Your task to perform on an android device: Check the news Image 0: 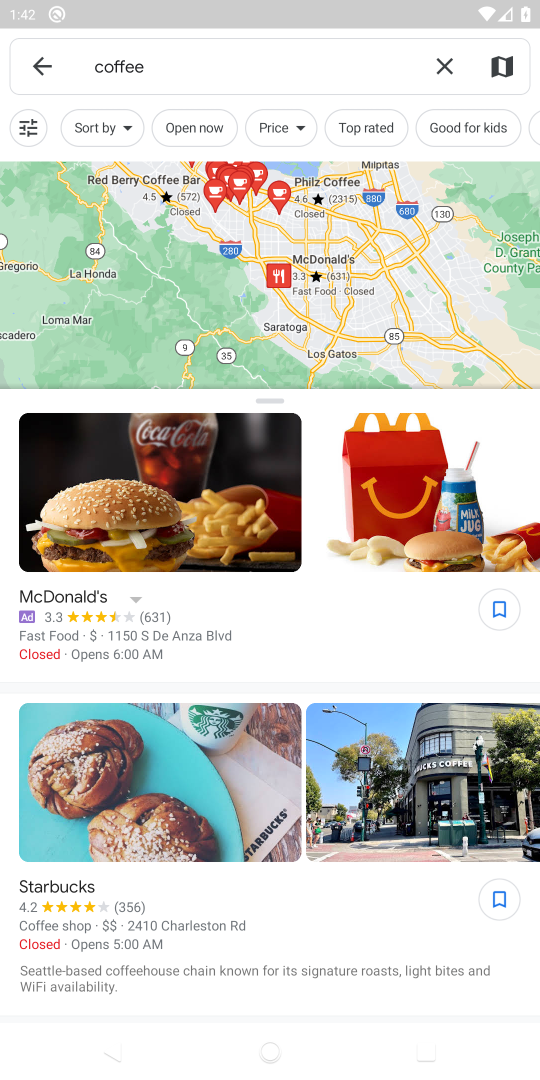
Step 0: press home button
Your task to perform on an android device: Check the news Image 1: 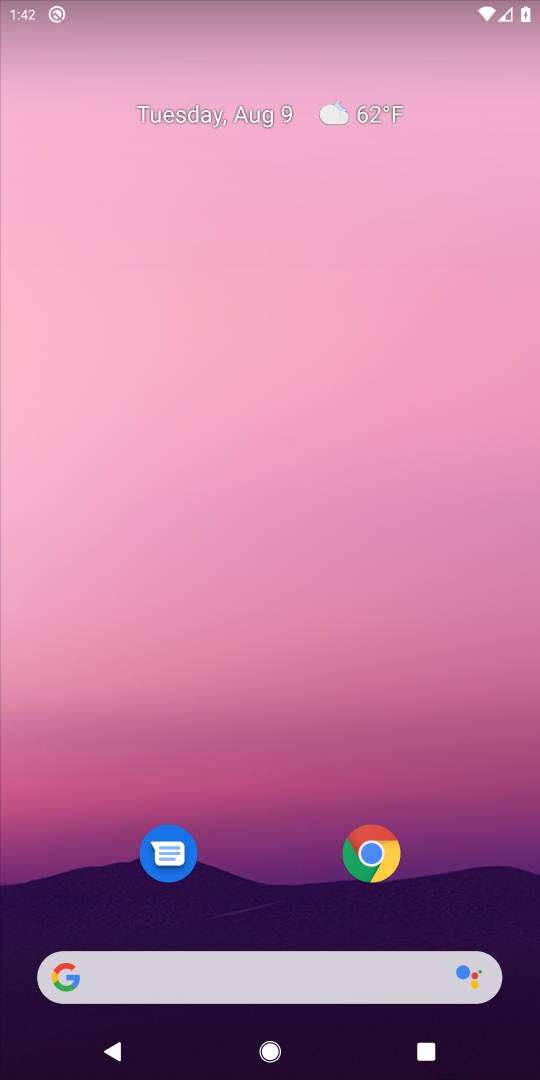
Step 1: click (62, 981)
Your task to perform on an android device: Check the news Image 2: 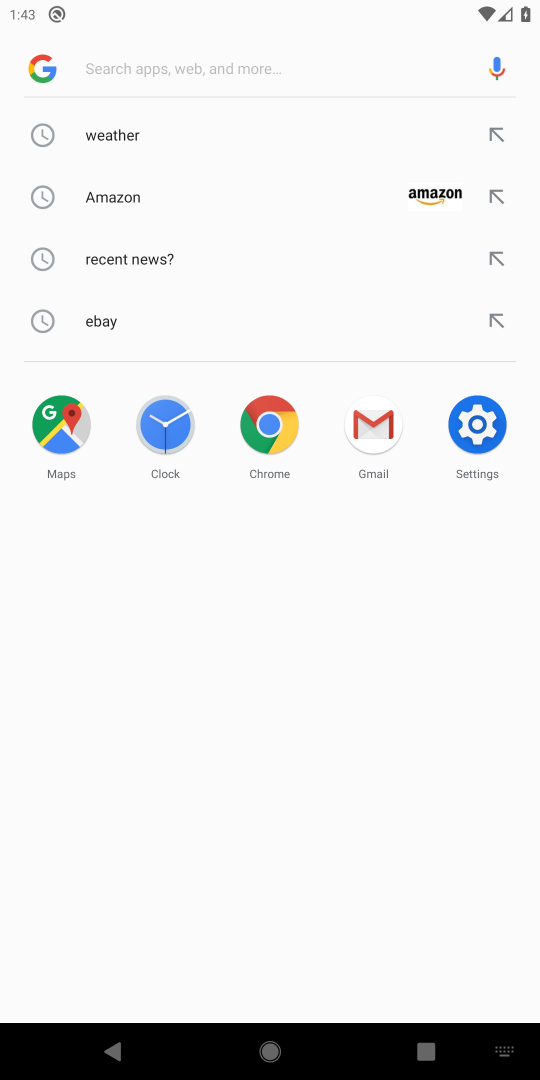
Step 2: type "news"
Your task to perform on an android device: Check the news Image 3: 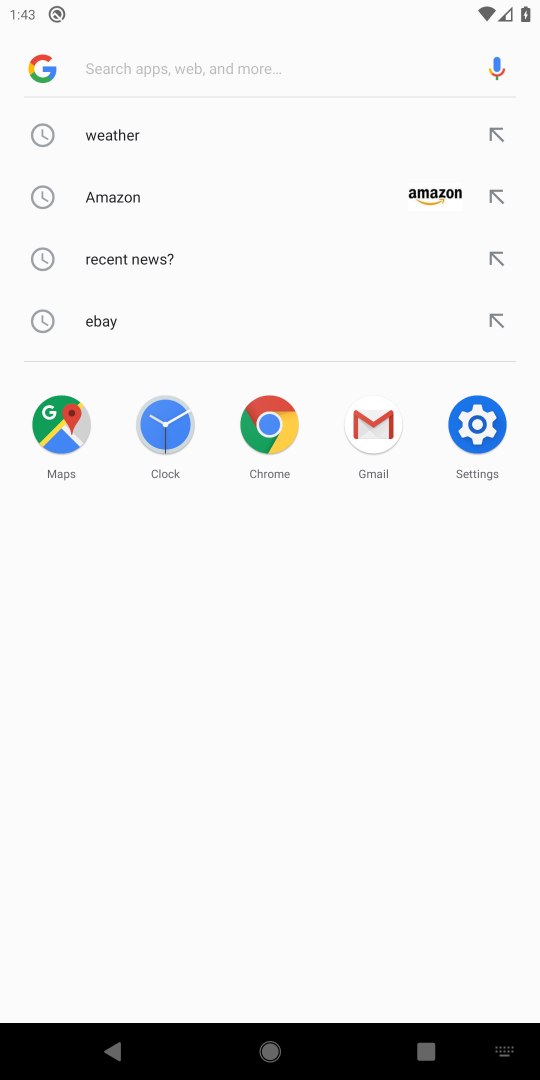
Step 3: click (188, 69)
Your task to perform on an android device: Check the news Image 4: 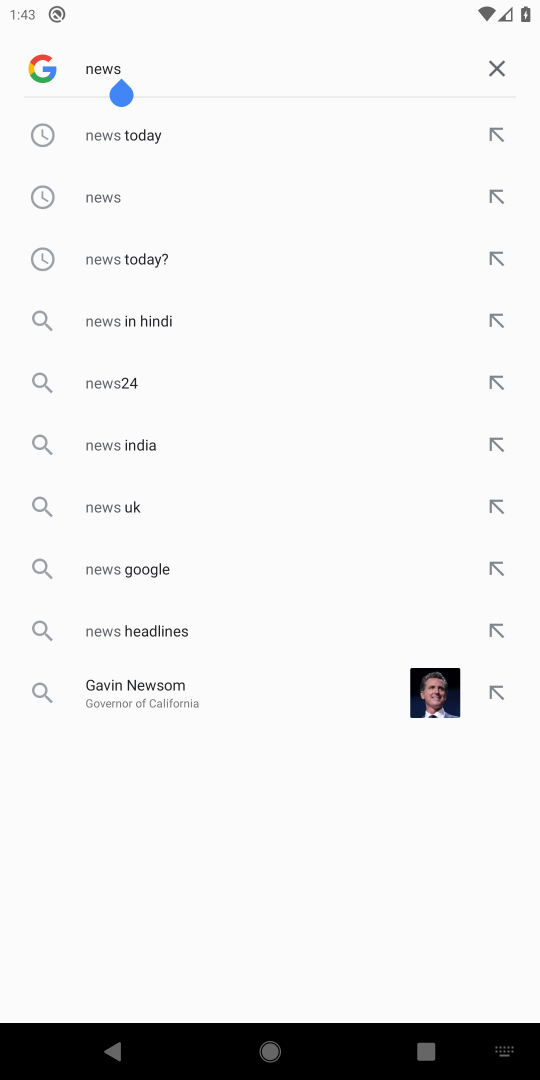
Step 4: click (111, 210)
Your task to perform on an android device: Check the news Image 5: 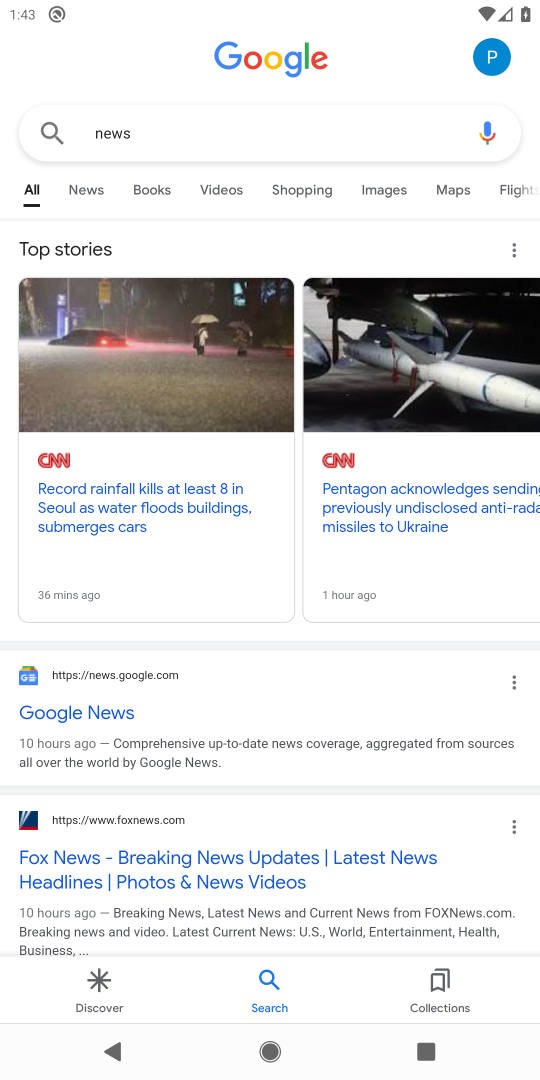
Step 5: task complete